Your task to perform on an android device: turn off location Image 0: 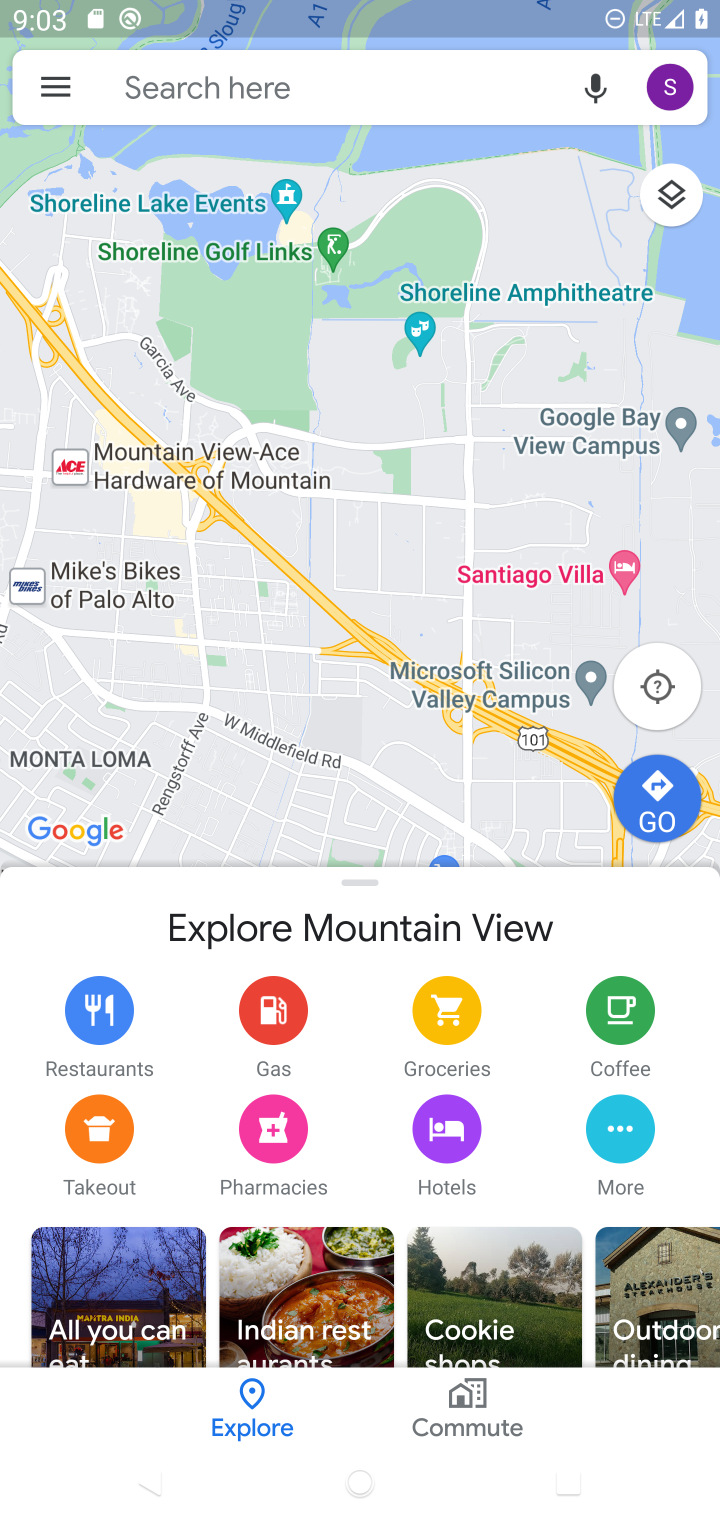
Step 0: press home button
Your task to perform on an android device: turn off location Image 1: 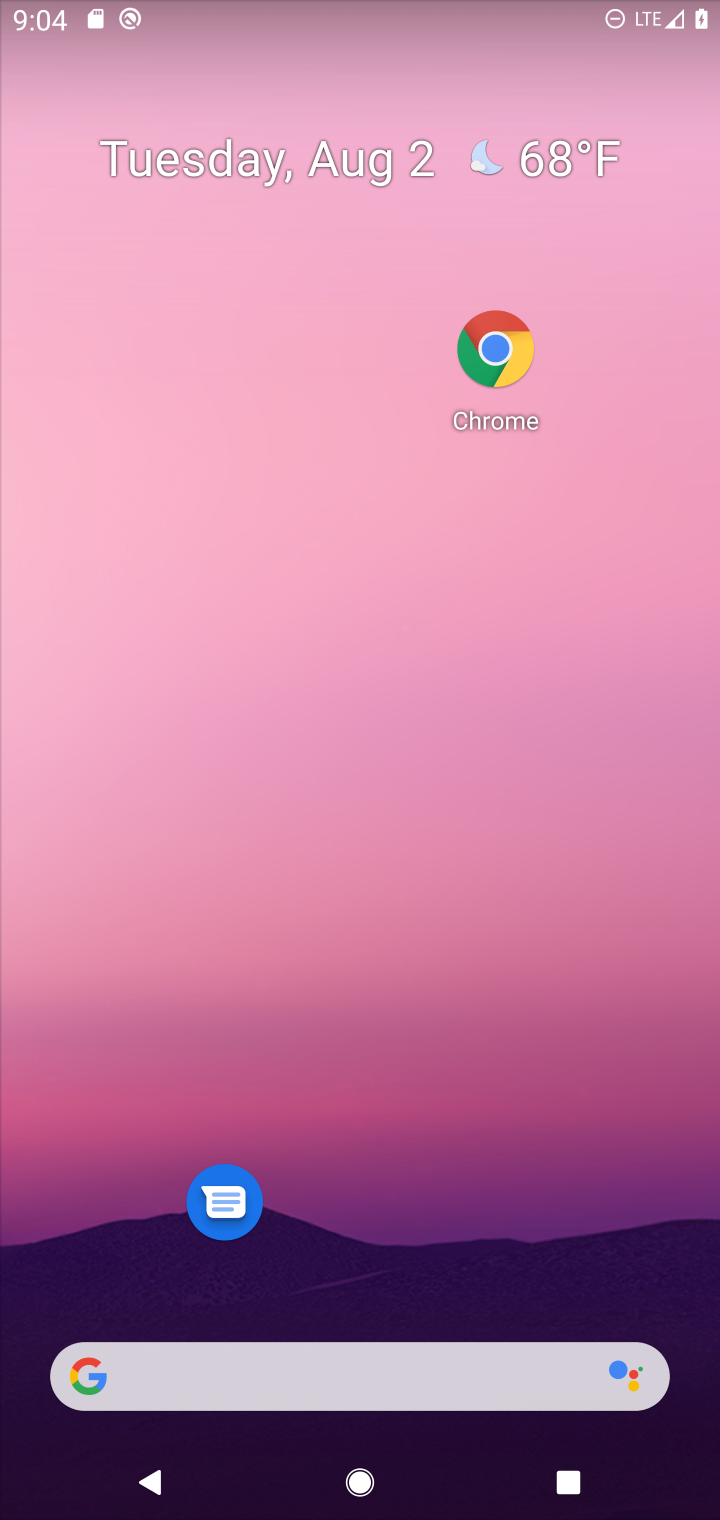
Step 1: drag from (394, 1029) to (426, 0)
Your task to perform on an android device: turn off location Image 2: 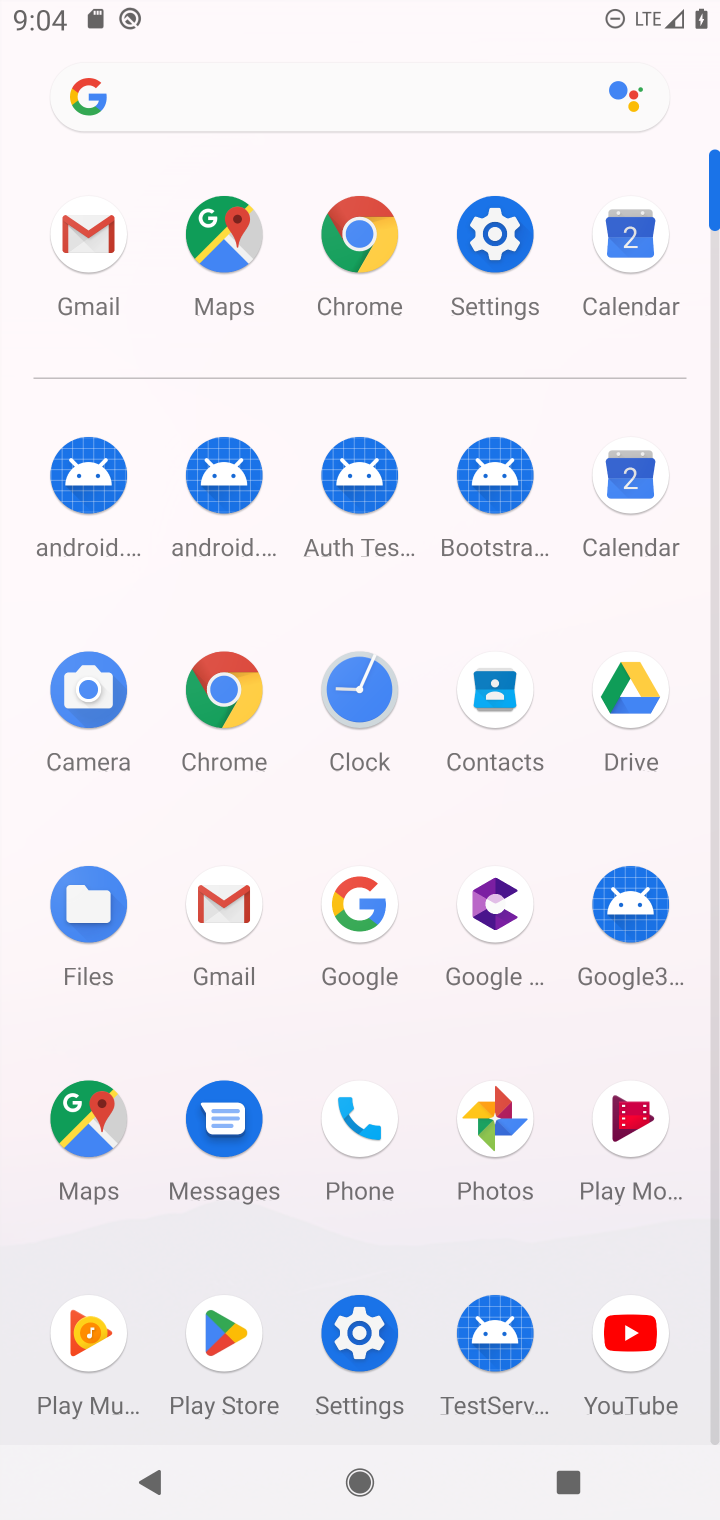
Step 2: click (479, 223)
Your task to perform on an android device: turn off location Image 3: 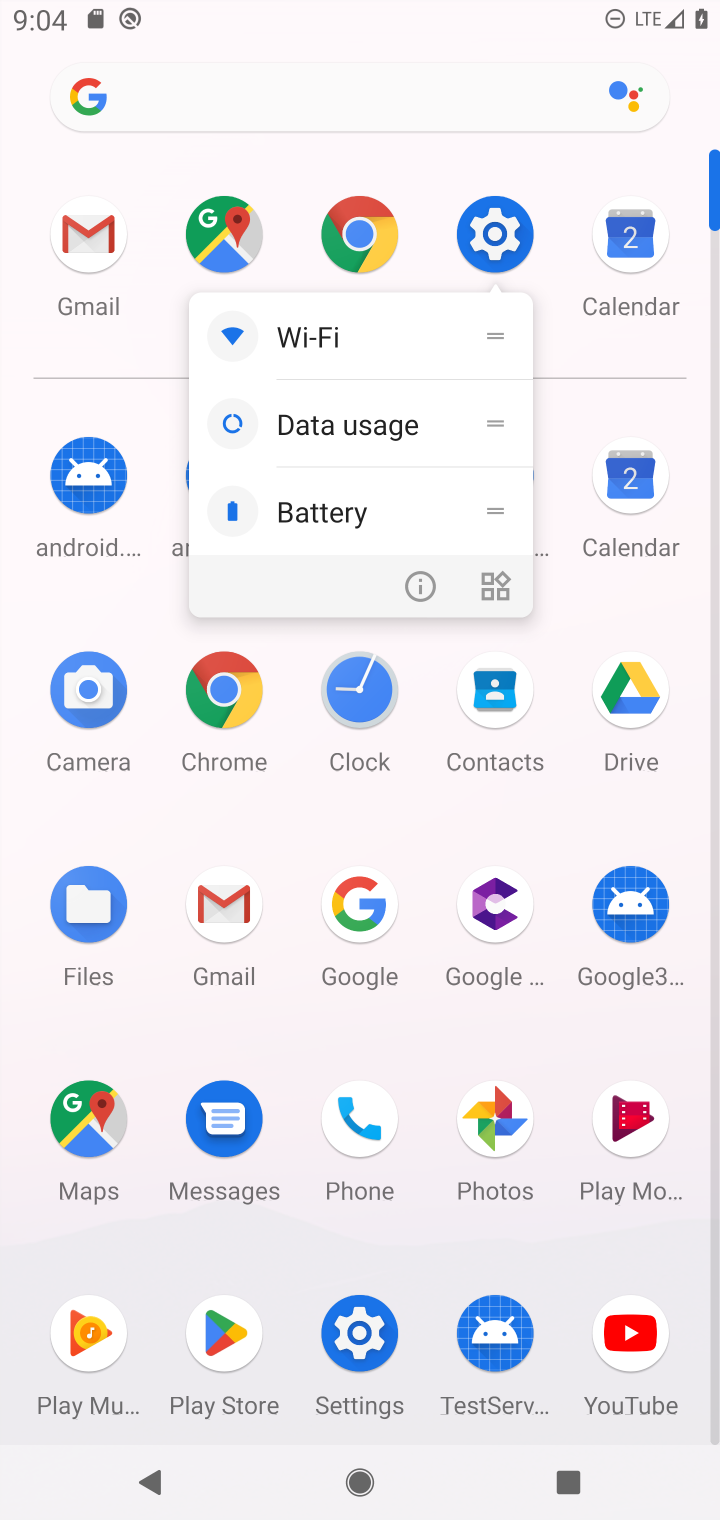
Step 3: click (497, 232)
Your task to perform on an android device: turn off location Image 4: 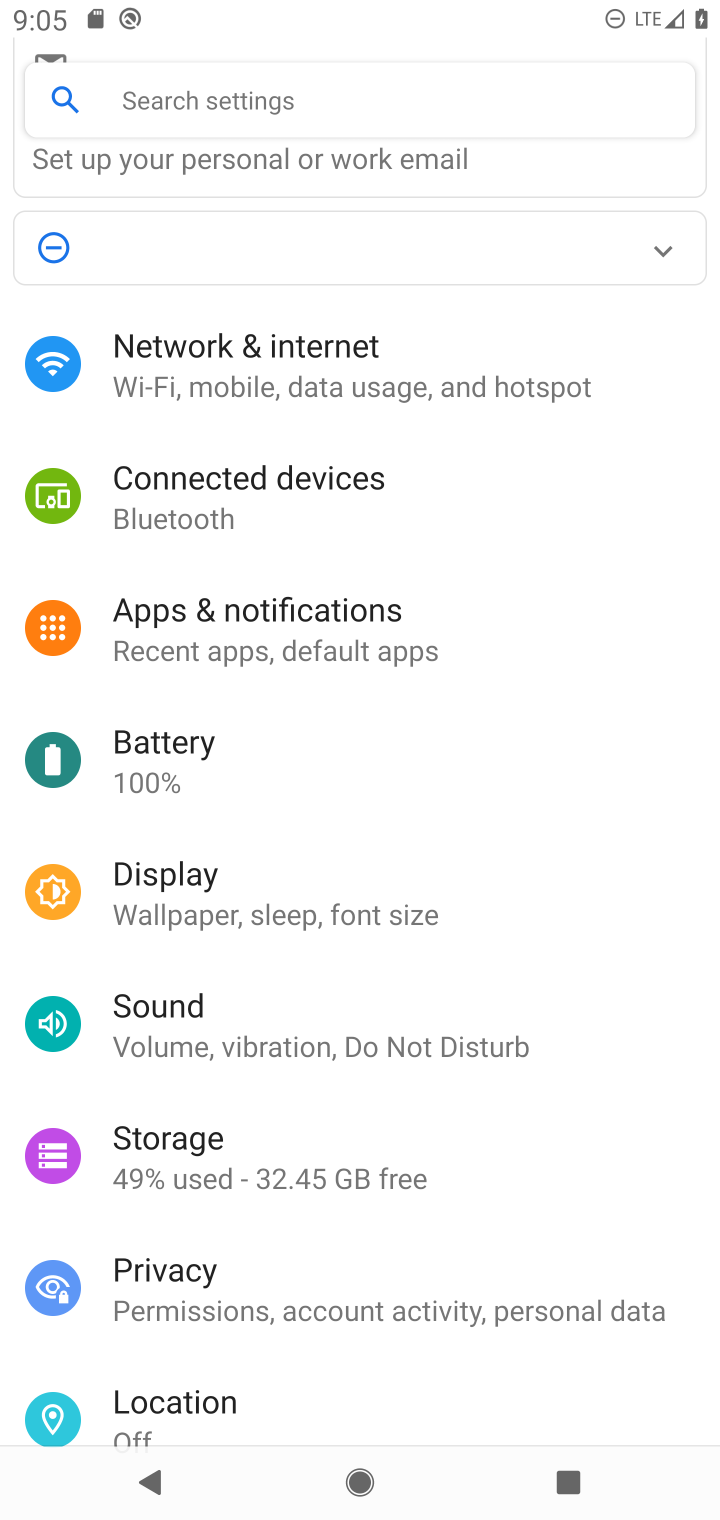
Step 4: click (176, 1406)
Your task to perform on an android device: turn off location Image 5: 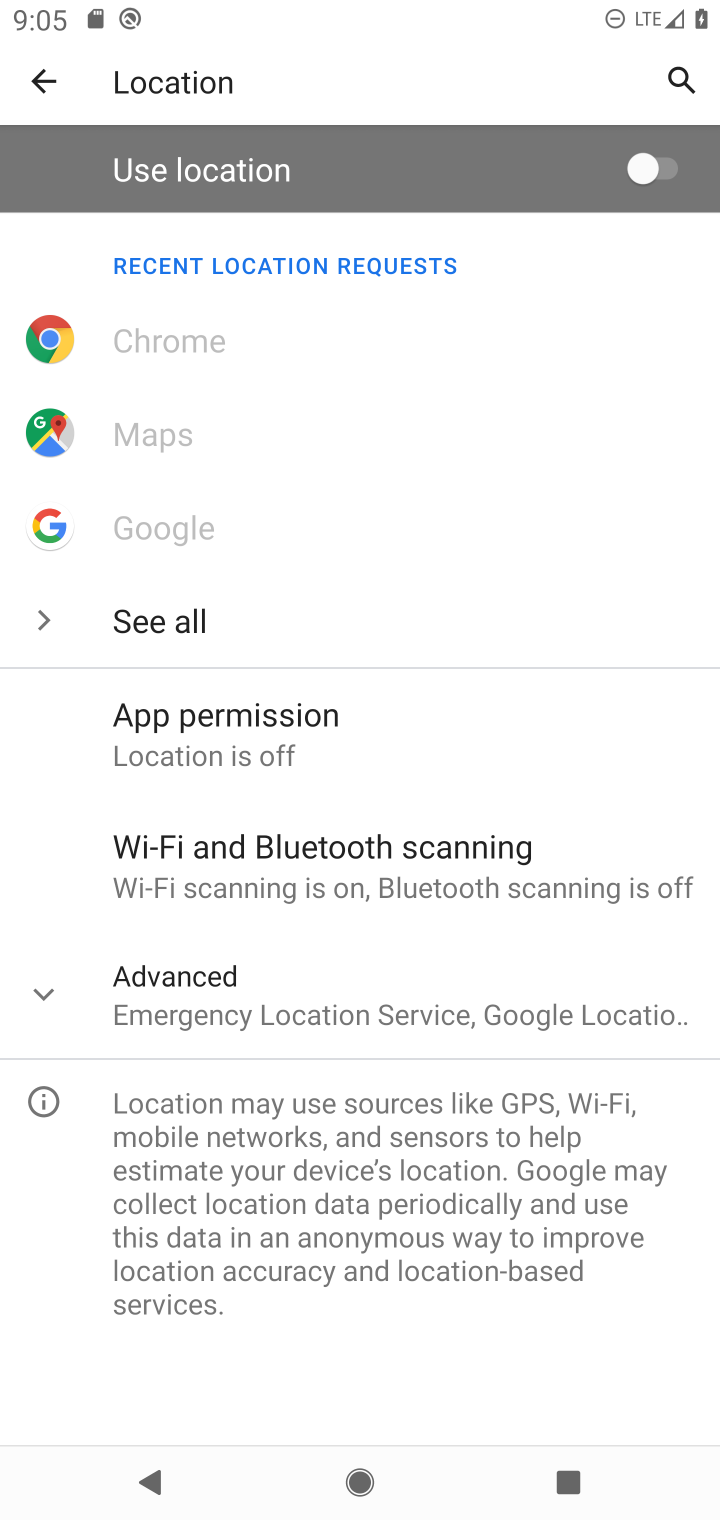
Step 5: task complete